Your task to perform on an android device: What's on my calendar today? Image 0: 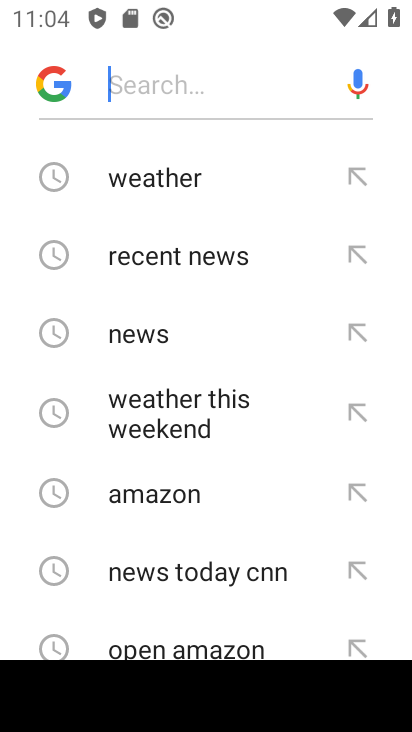
Step 0: press back button
Your task to perform on an android device: What's on my calendar today? Image 1: 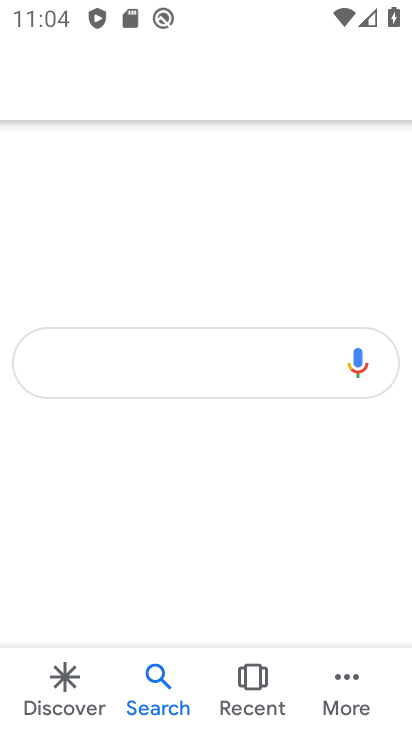
Step 1: press back button
Your task to perform on an android device: What's on my calendar today? Image 2: 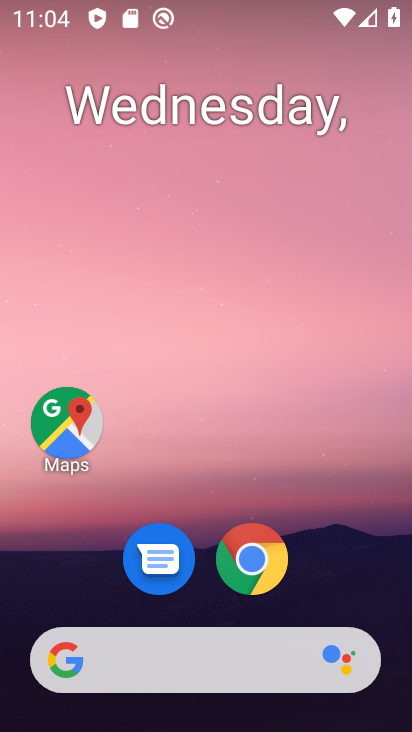
Step 2: drag from (204, 547) to (220, 67)
Your task to perform on an android device: What's on my calendar today? Image 3: 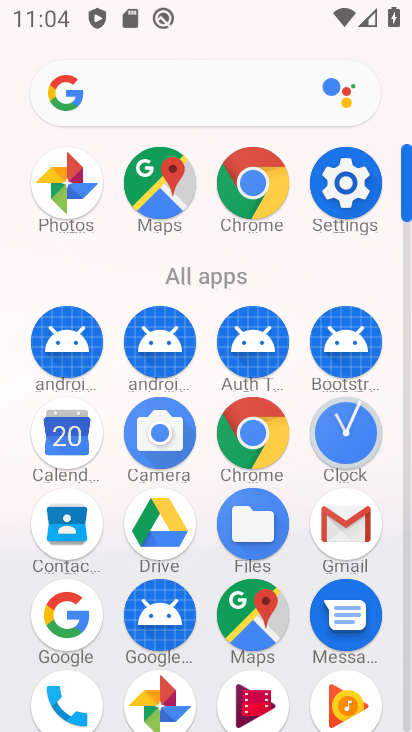
Step 3: click (68, 448)
Your task to perform on an android device: What's on my calendar today? Image 4: 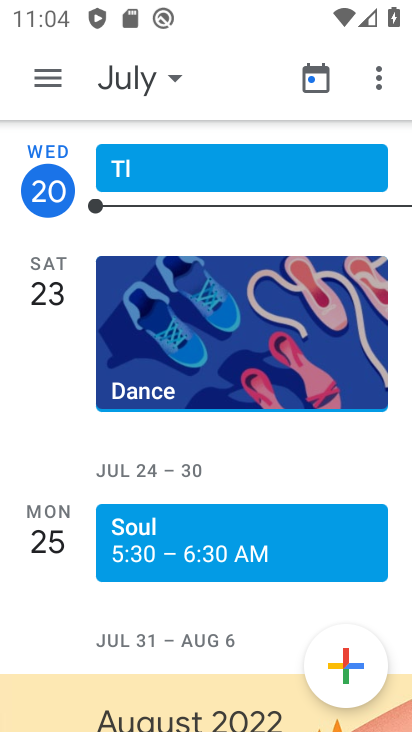
Step 4: click (153, 77)
Your task to perform on an android device: What's on my calendar today? Image 5: 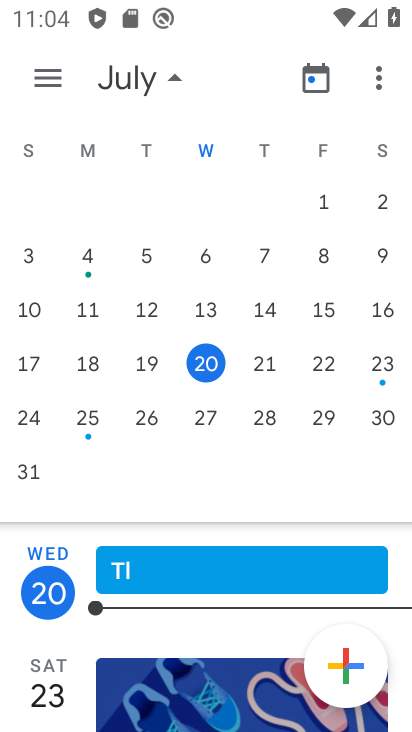
Step 5: drag from (354, 346) to (0, 309)
Your task to perform on an android device: What's on my calendar today? Image 6: 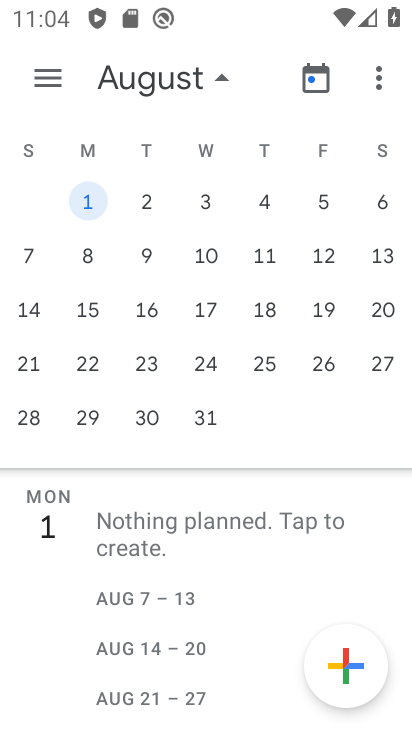
Step 6: drag from (25, 296) to (328, 307)
Your task to perform on an android device: What's on my calendar today? Image 7: 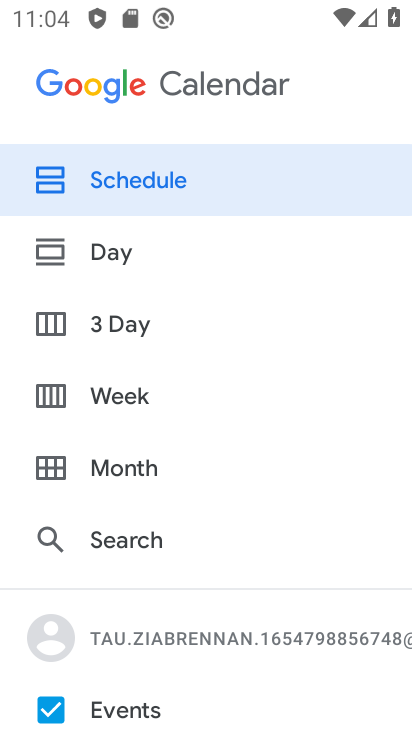
Step 7: drag from (326, 307) to (76, 313)
Your task to perform on an android device: What's on my calendar today? Image 8: 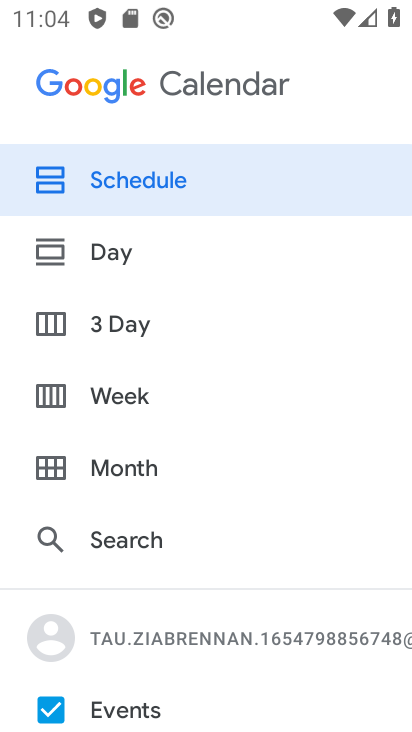
Step 8: drag from (394, 376) to (7, 449)
Your task to perform on an android device: What's on my calendar today? Image 9: 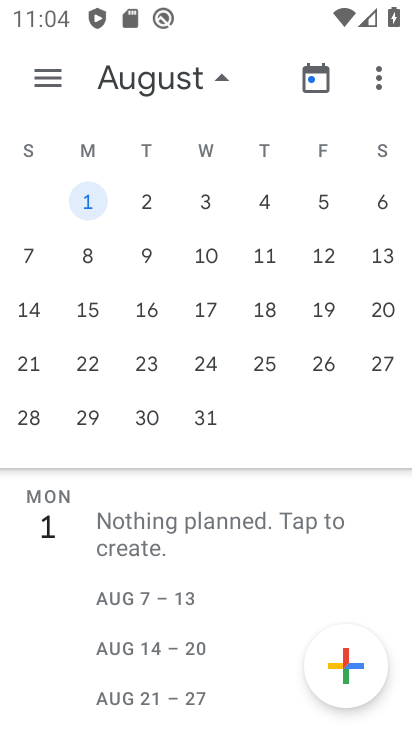
Step 9: drag from (78, 315) to (389, 303)
Your task to perform on an android device: What's on my calendar today? Image 10: 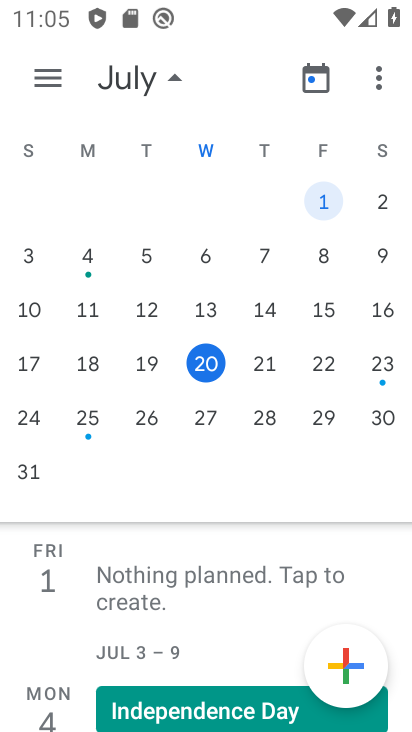
Step 10: click (220, 359)
Your task to perform on an android device: What's on my calendar today? Image 11: 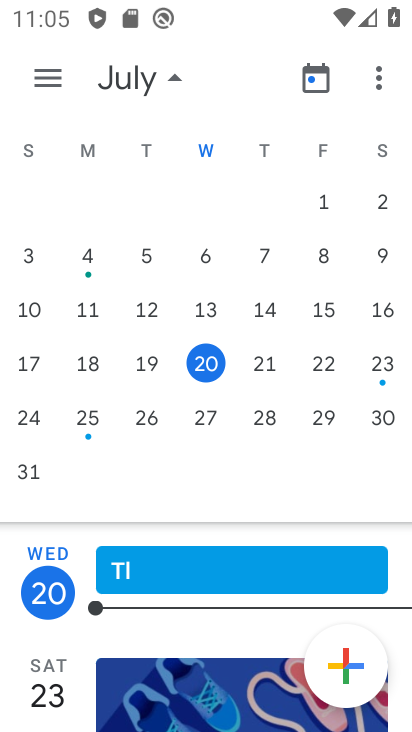
Step 11: task complete